Your task to perform on an android device: toggle improve location accuracy Image 0: 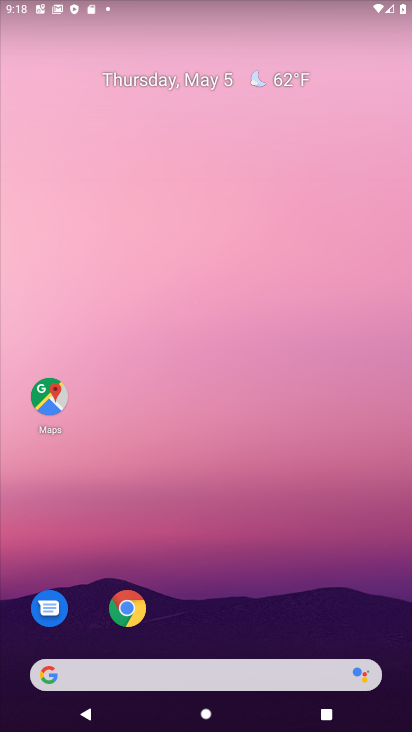
Step 0: drag from (252, 545) to (275, 23)
Your task to perform on an android device: toggle improve location accuracy Image 1: 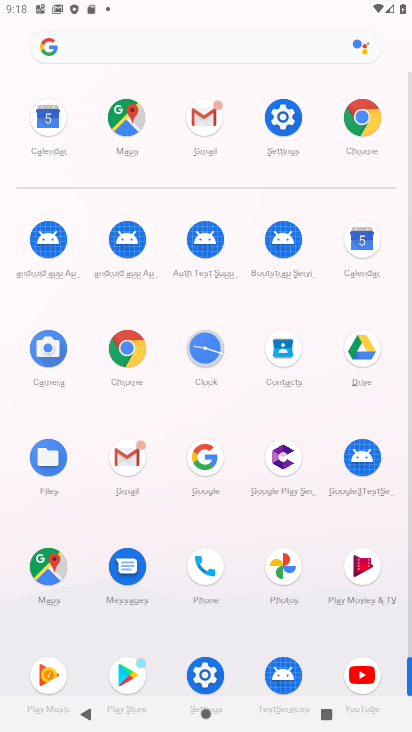
Step 1: click (201, 674)
Your task to perform on an android device: toggle improve location accuracy Image 2: 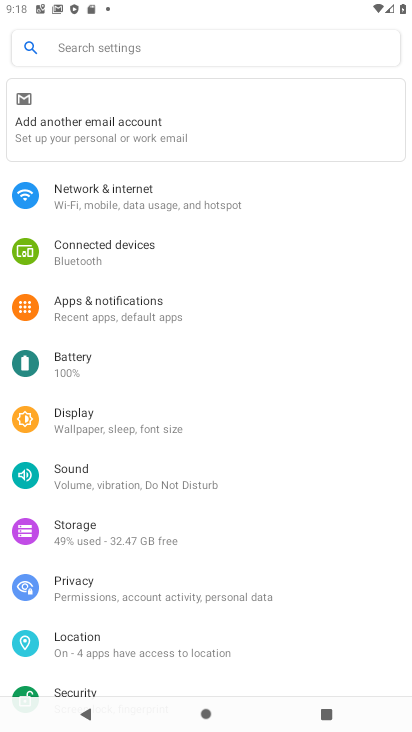
Step 2: click (144, 634)
Your task to perform on an android device: toggle improve location accuracy Image 3: 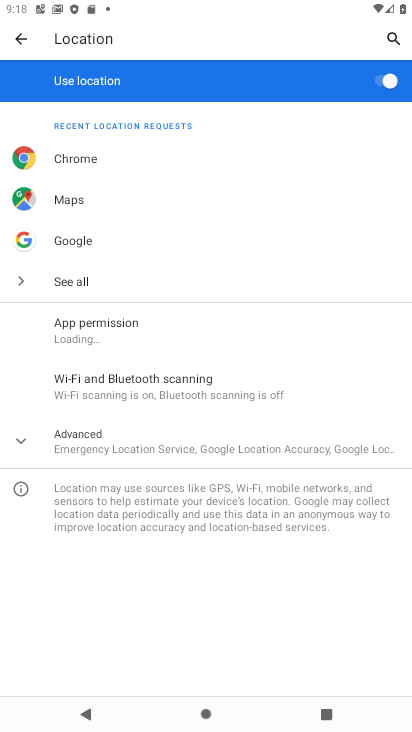
Step 3: click (81, 444)
Your task to perform on an android device: toggle improve location accuracy Image 4: 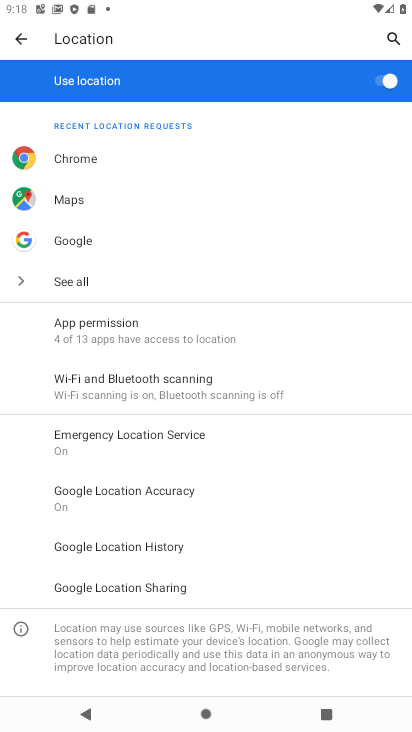
Step 4: click (180, 491)
Your task to perform on an android device: toggle improve location accuracy Image 5: 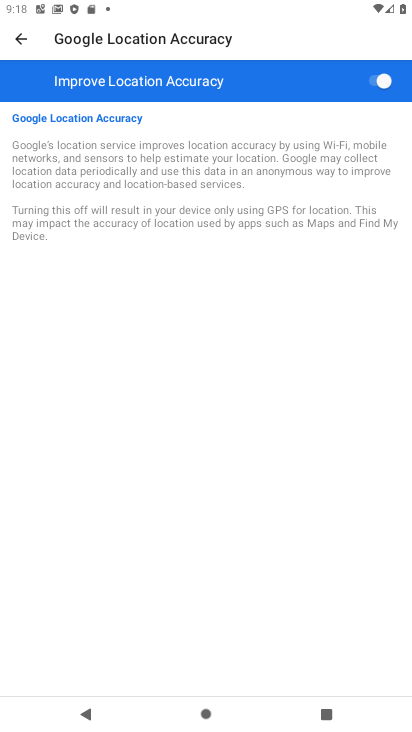
Step 5: click (372, 82)
Your task to perform on an android device: toggle improve location accuracy Image 6: 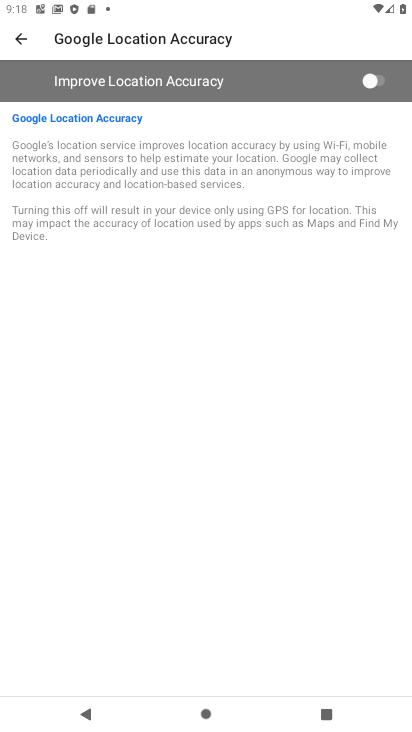
Step 6: task complete